Your task to perform on an android device: toggle notifications settings in the gmail app Image 0: 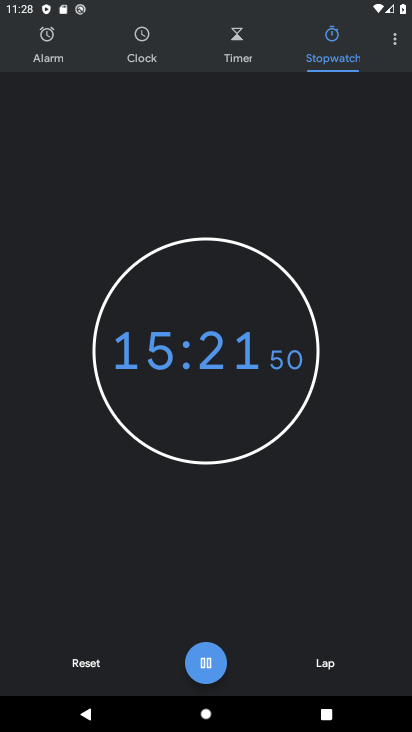
Step 0: press home button
Your task to perform on an android device: toggle notifications settings in the gmail app Image 1: 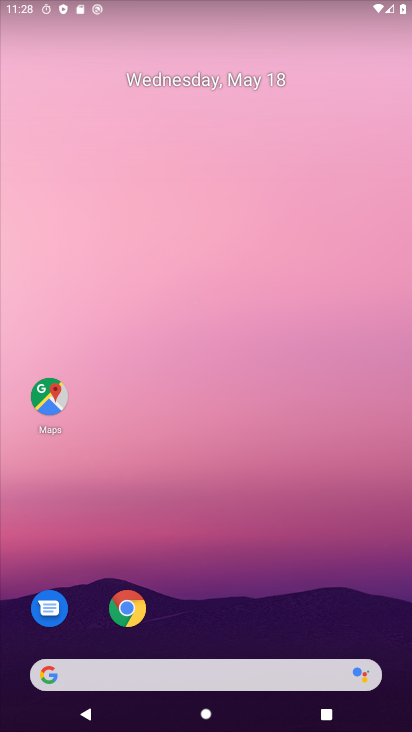
Step 1: drag from (262, 600) to (233, 153)
Your task to perform on an android device: toggle notifications settings in the gmail app Image 2: 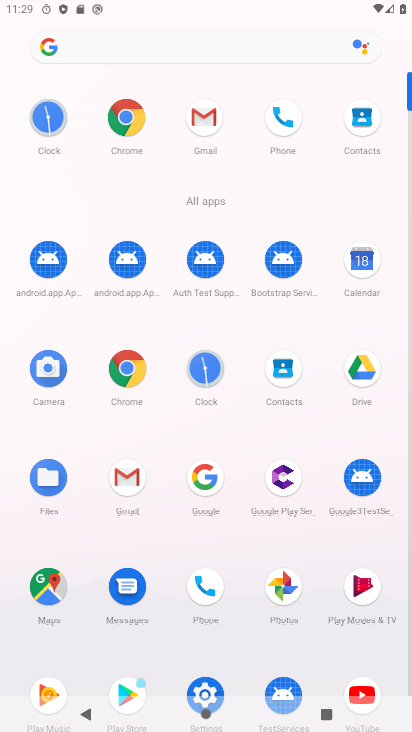
Step 2: click (194, 116)
Your task to perform on an android device: toggle notifications settings in the gmail app Image 3: 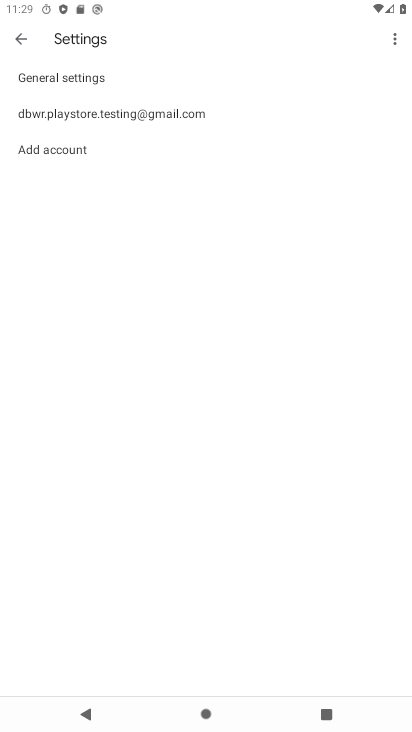
Step 3: click (193, 117)
Your task to perform on an android device: toggle notifications settings in the gmail app Image 4: 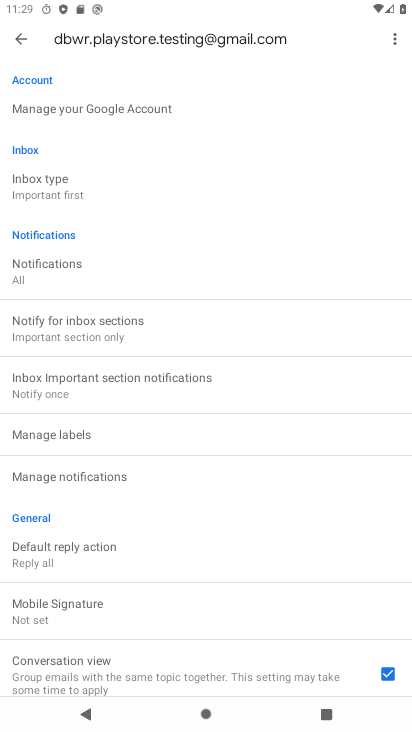
Step 4: click (178, 481)
Your task to perform on an android device: toggle notifications settings in the gmail app Image 5: 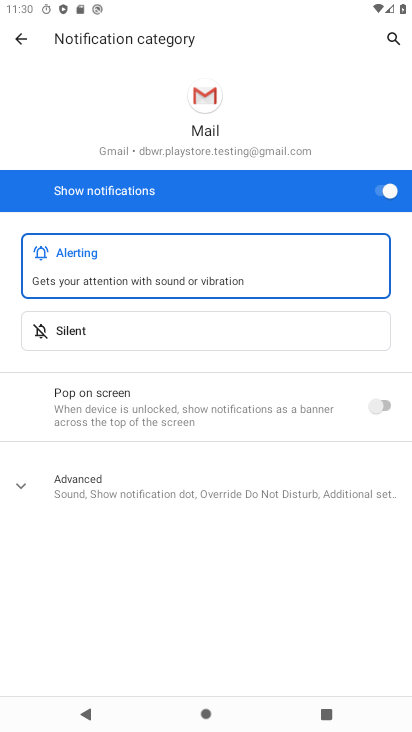
Step 5: click (358, 327)
Your task to perform on an android device: toggle notifications settings in the gmail app Image 6: 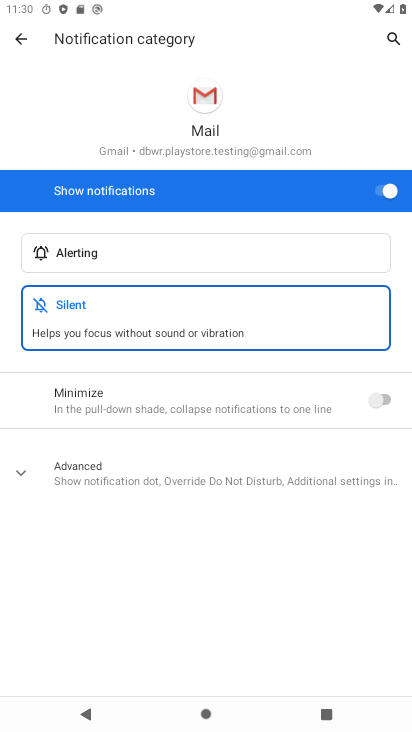
Step 6: click (387, 403)
Your task to perform on an android device: toggle notifications settings in the gmail app Image 7: 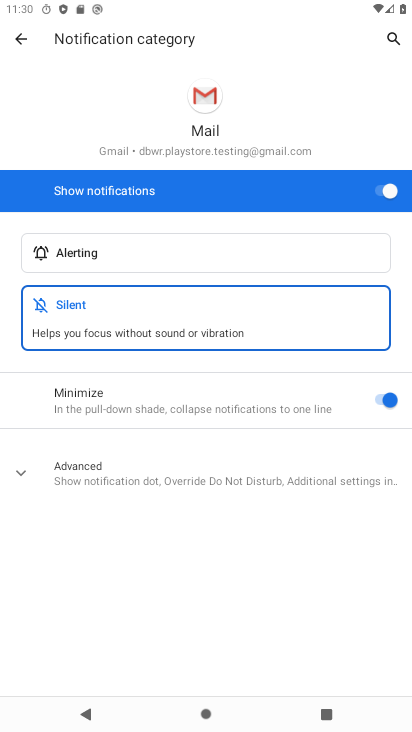
Step 7: task complete